Your task to perform on an android device: Do I have any events this weekend? Image 0: 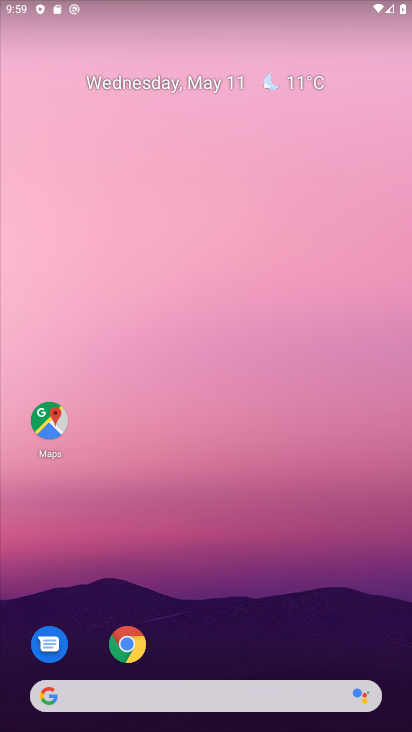
Step 0: drag from (341, 545) to (323, 0)
Your task to perform on an android device: Do I have any events this weekend? Image 1: 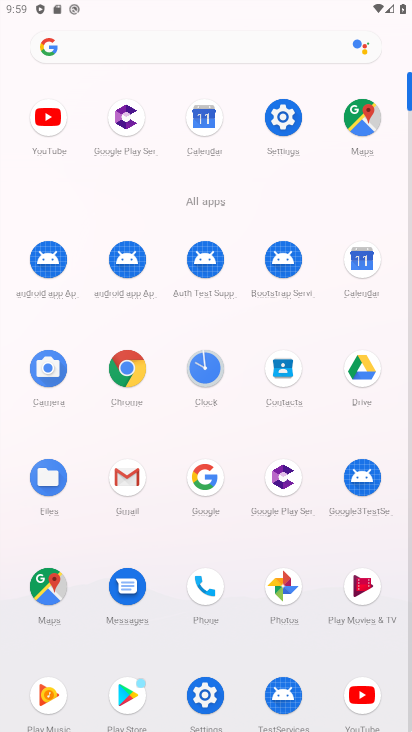
Step 1: click (196, 135)
Your task to perform on an android device: Do I have any events this weekend? Image 2: 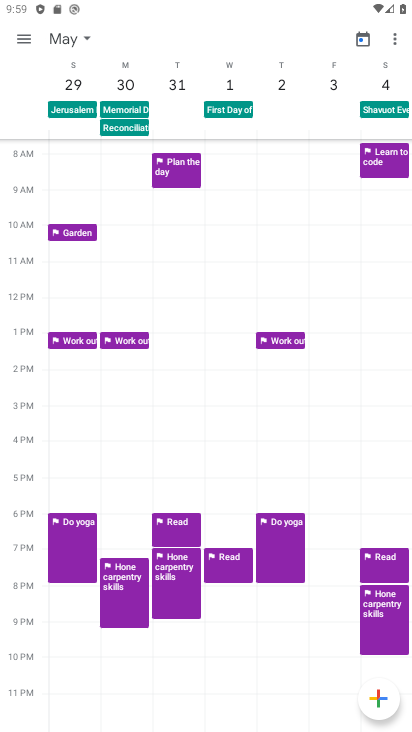
Step 2: click (89, 36)
Your task to perform on an android device: Do I have any events this weekend? Image 3: 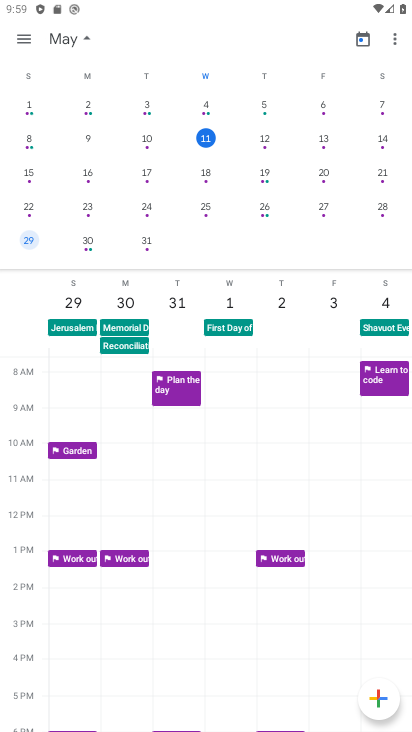
Step 3: click (191, 138)
Your task to perform on an android device: Do I have any events this weekend? Image 4: 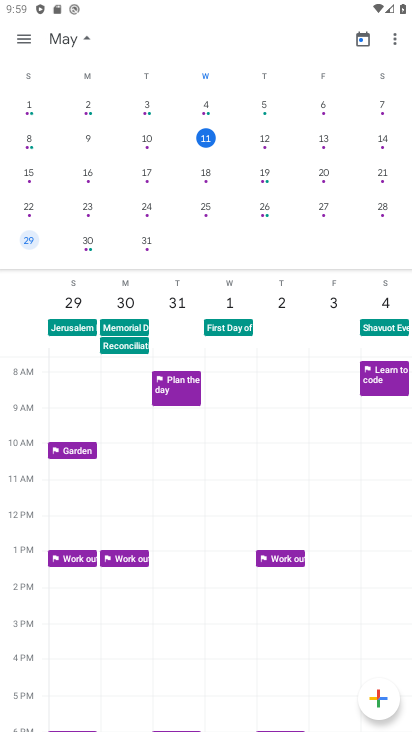
Step 4: click (203, 142)
Your task to perform on an android device: Do I have any events this weekend? Image 5: 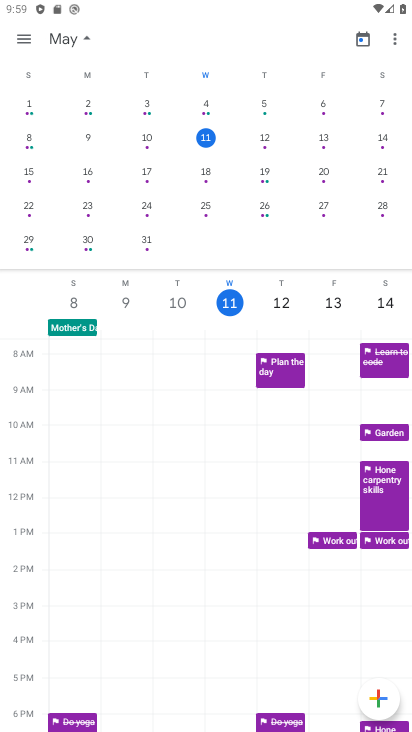
Step 5: click (19, 41)
Your task to perform on an android device: Do I have any events this weekend? Image 6: 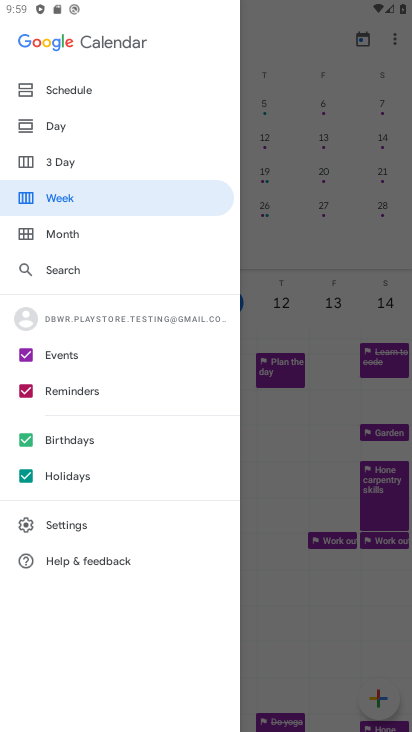
Step 6: click (56, 391)
Your task to perform on an android device: Do I have any events this weekend? Image 7: 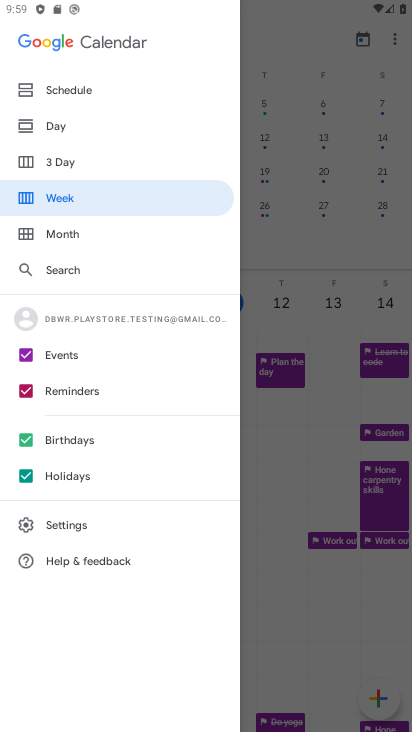
Step 7: click (60, 441)
Your task to perform on an android device: Do I have any events this weekend? Image 8: 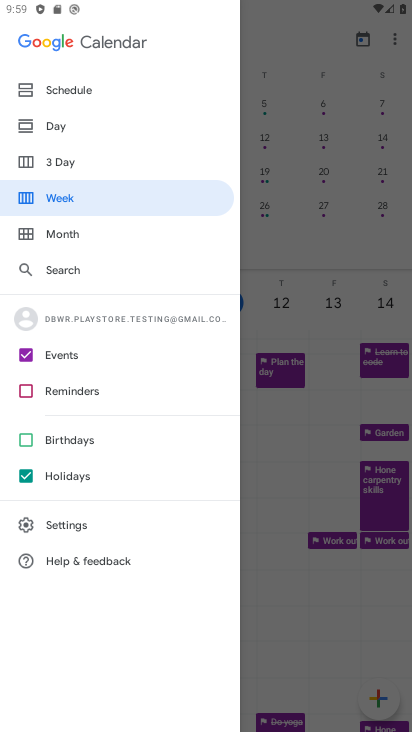
Step 8: click (66, 479)
Your task to perform on an android device: Do I have any events this weekend? Image 9: 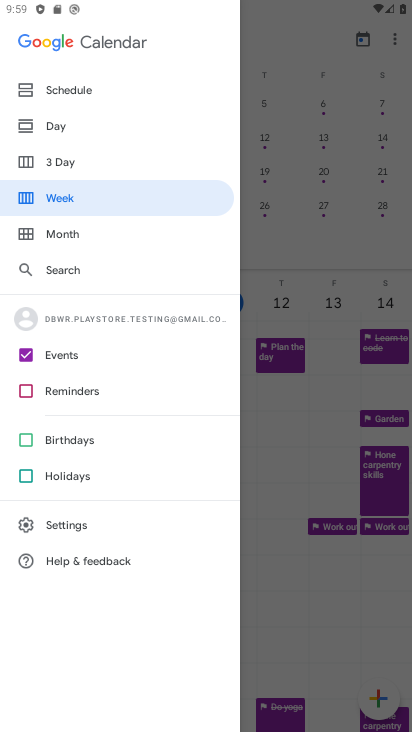
Step 9: click (38, 191)
Your task to perform on an android device: Do I have any events this weekend? Image 10: 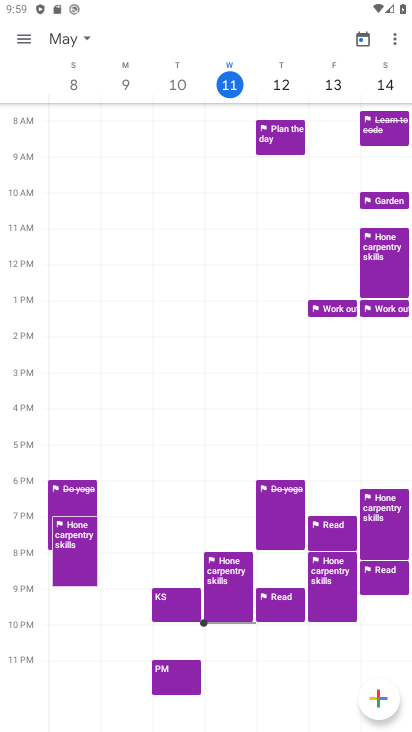
Step 10: click (390, 87)
Your task to perform on an android device: Do I have any events this weekend? Image 11: 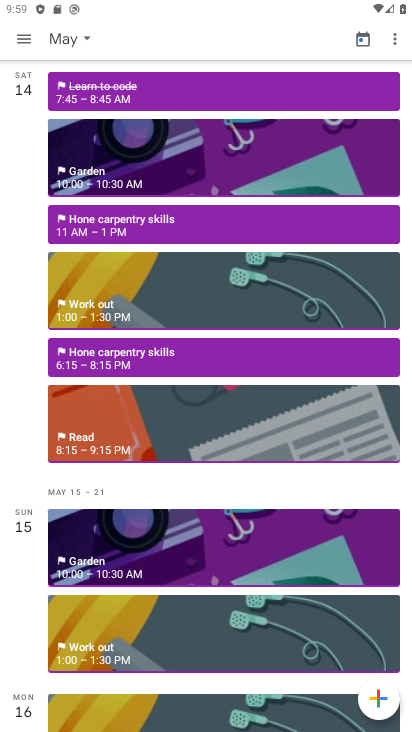
Step 11: task complete